Your task to perform on an android device: manage bookmarks in the chrome app Image 0: 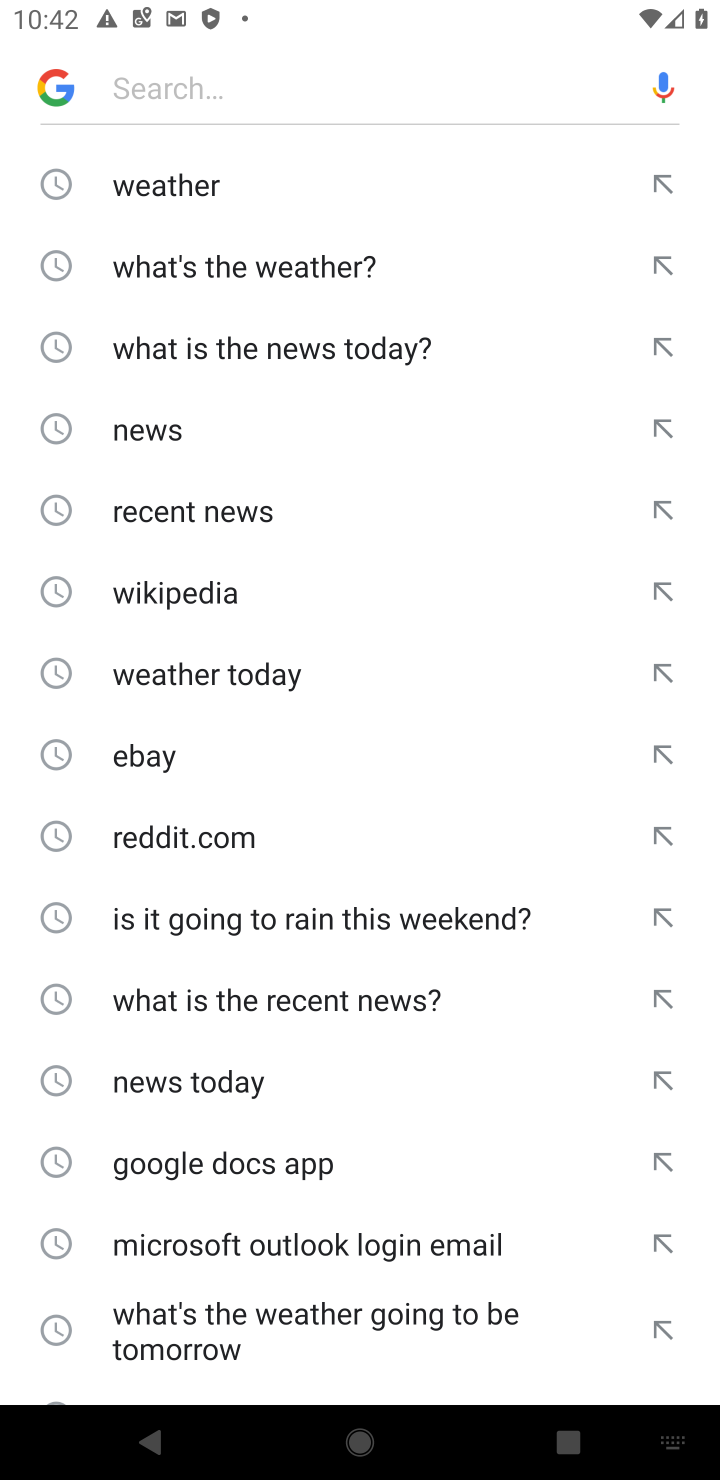
Step 0: click (412, 753)
Your task to perform on an android device: manage bookmarks in the chrome app Image 1: 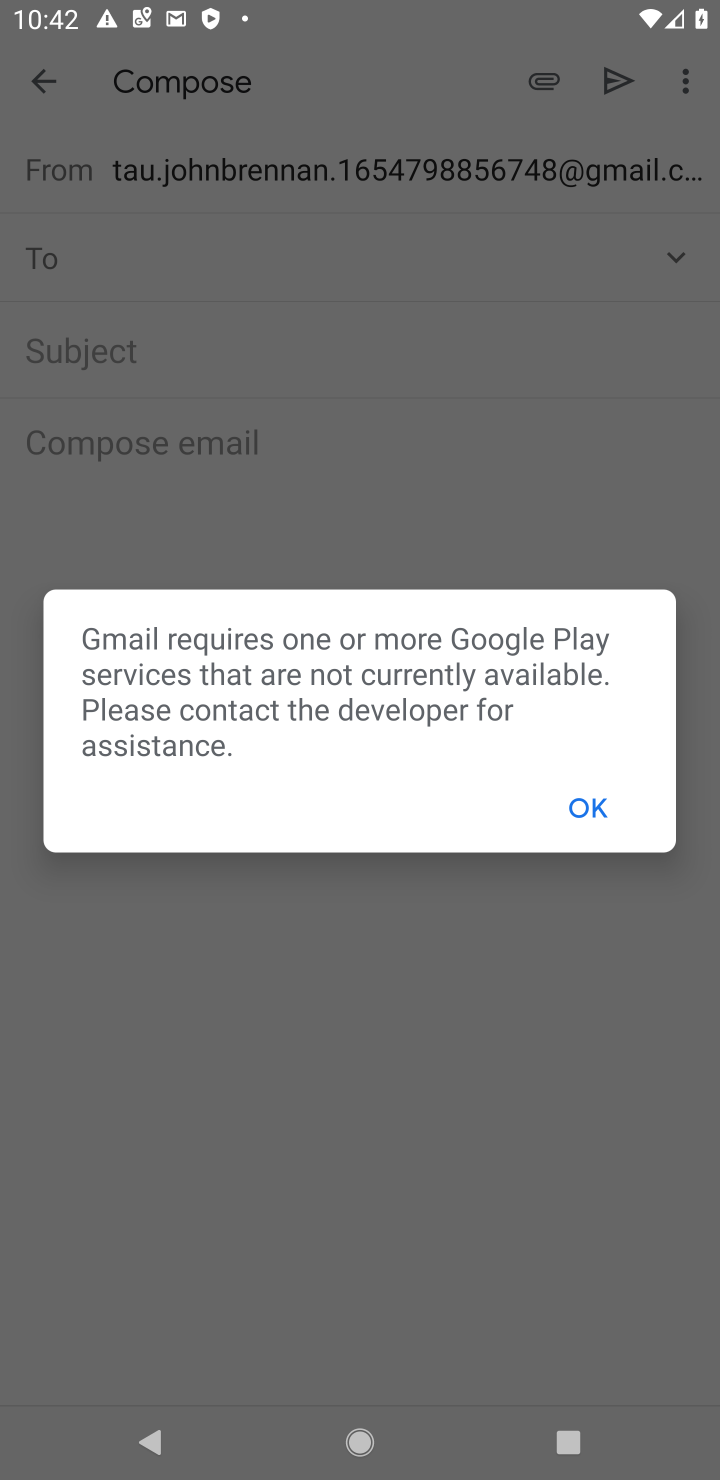
Step 1: press home button
Your task to perform on an android device: manage bookmarks in the chrome app Image 2: 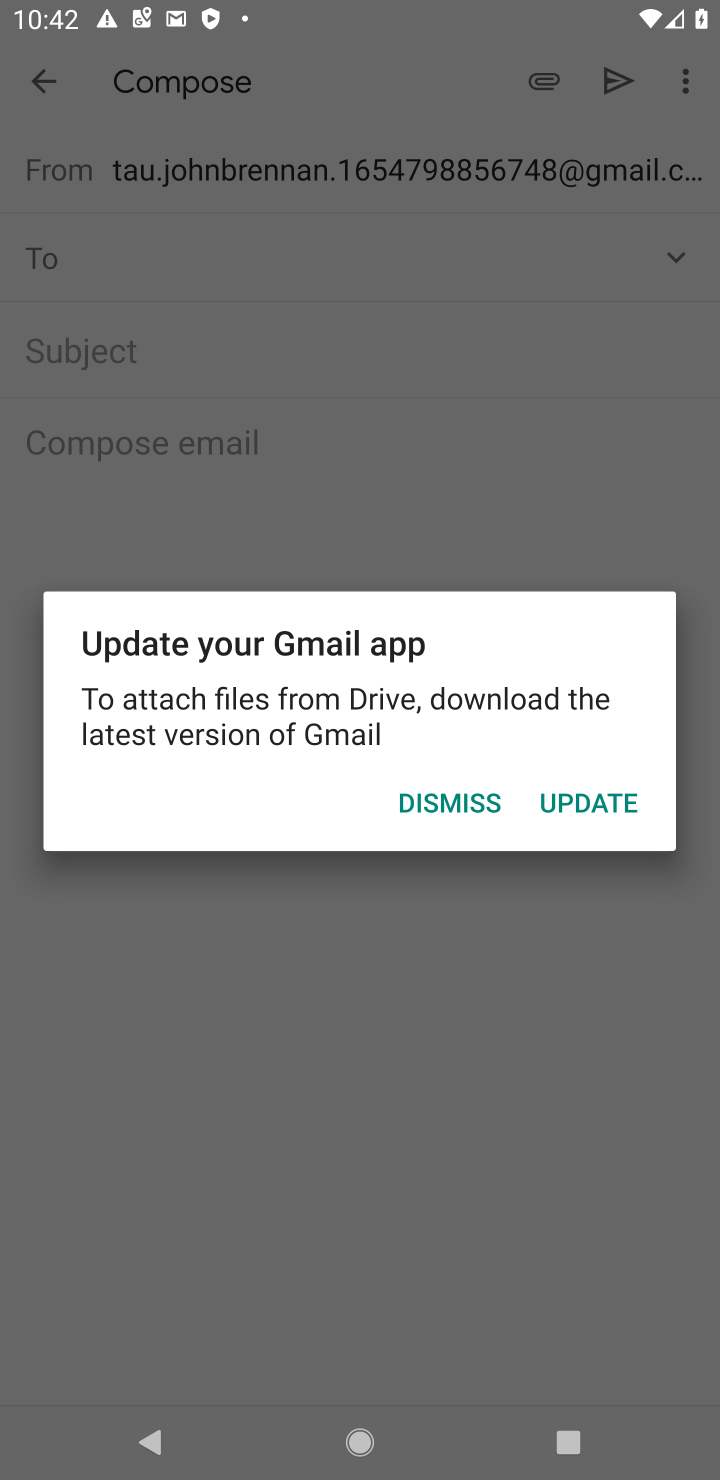
Step 2: drag from (372, 1248) to (335, 455)
Your task to perform on an android device: manage bookmarks in the chrome app Image 3: 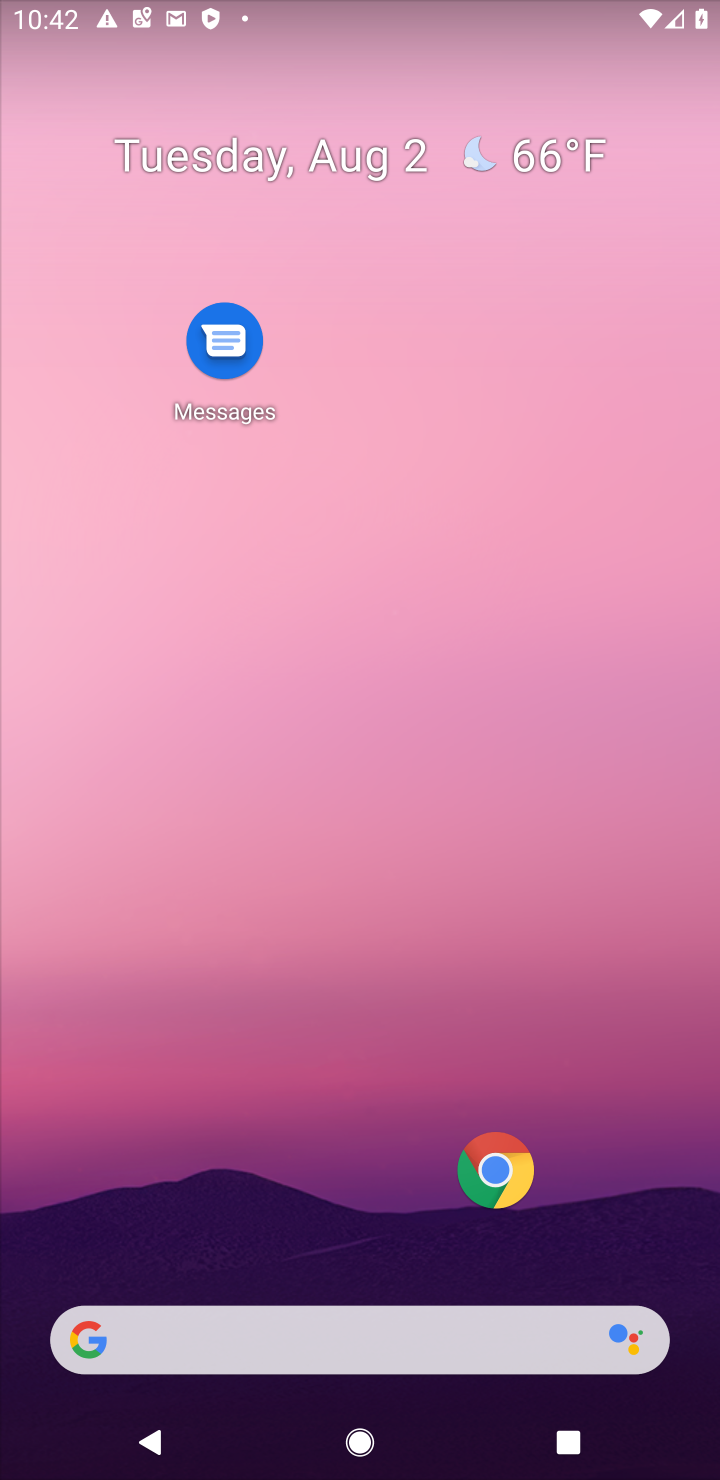
Step 3: click (484, 156)
Your task to perform on an android device: manage bookmarks in the chrome app Image 4: 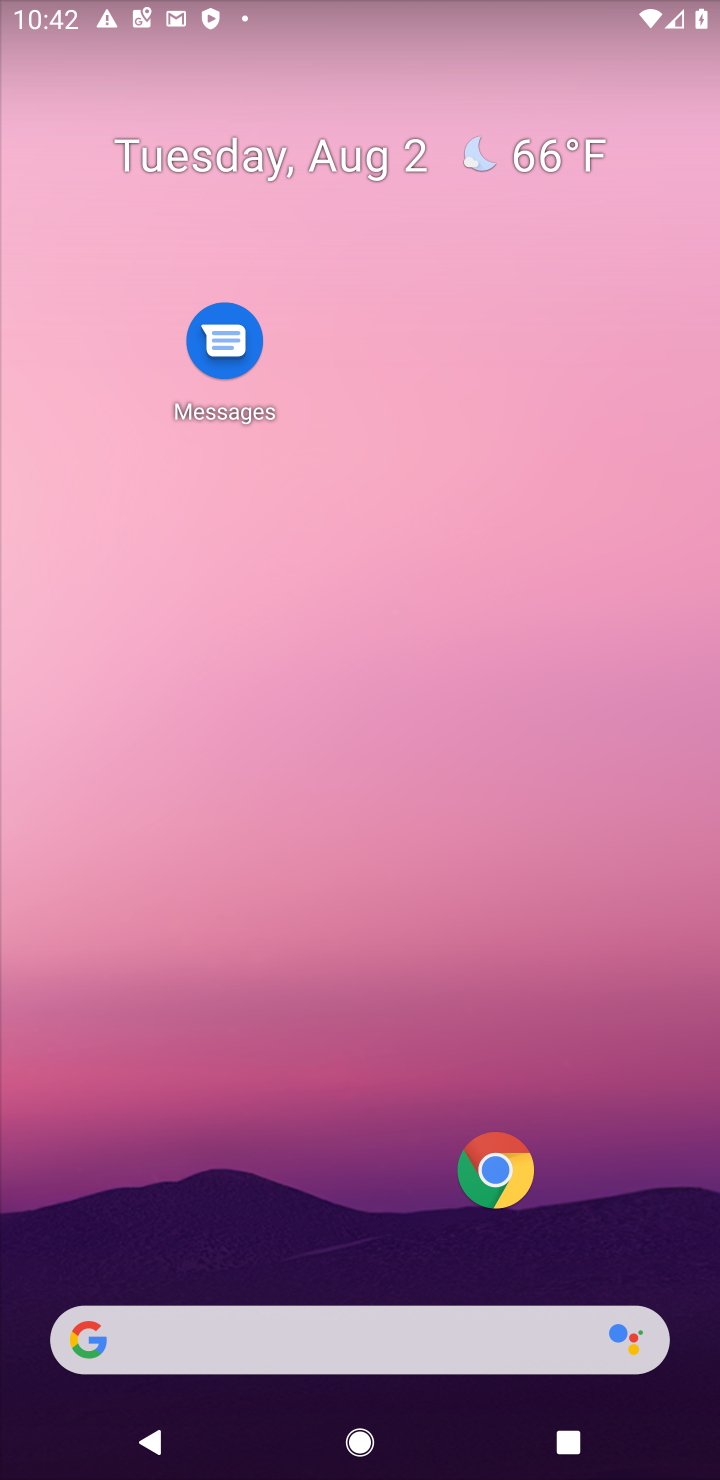
Step 4: drag from (437, 1266) to (519, 387)
Your task to perform on an android device: manage bookmarks in the chrome app Image 5: 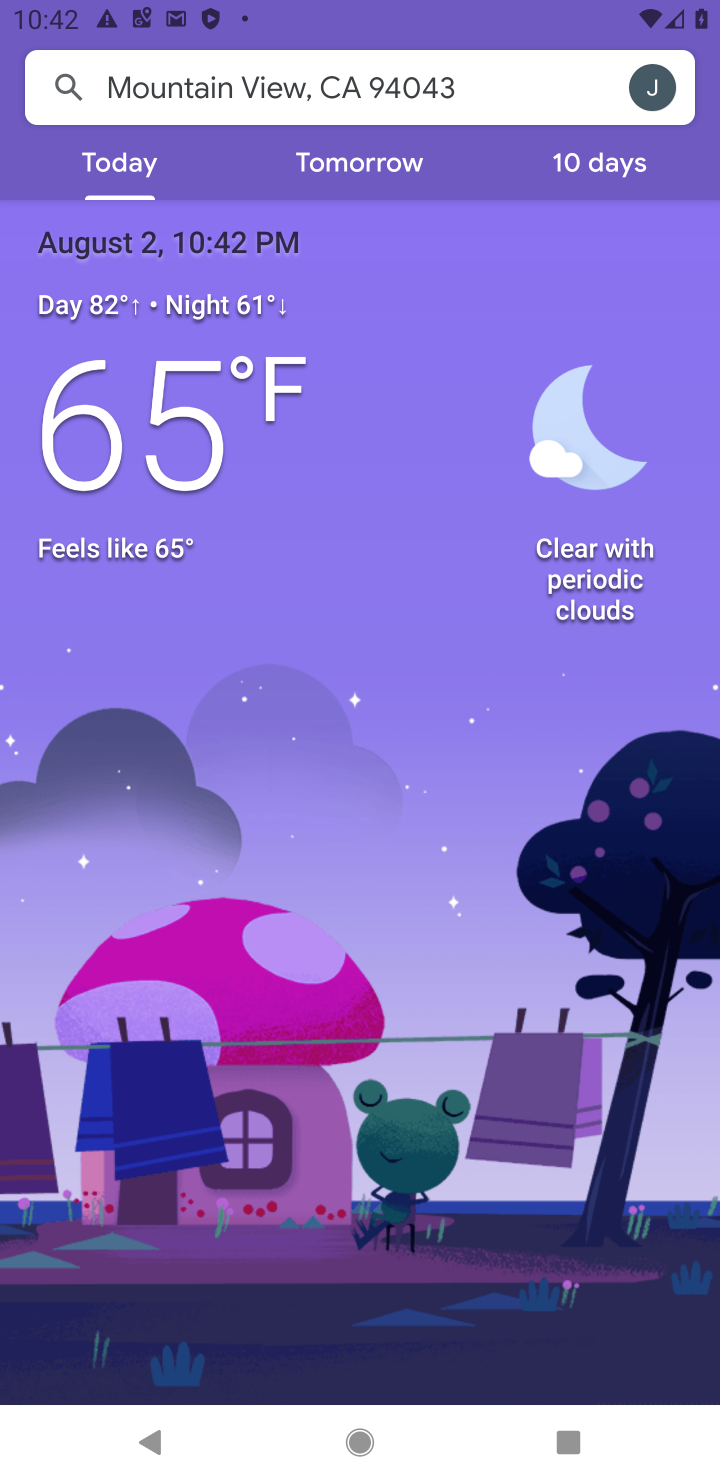
Step 5: drag from (358, 1198) to (353, 654)
Your task to perform on an android device: manage bookmarks in the chrome app Image 6: 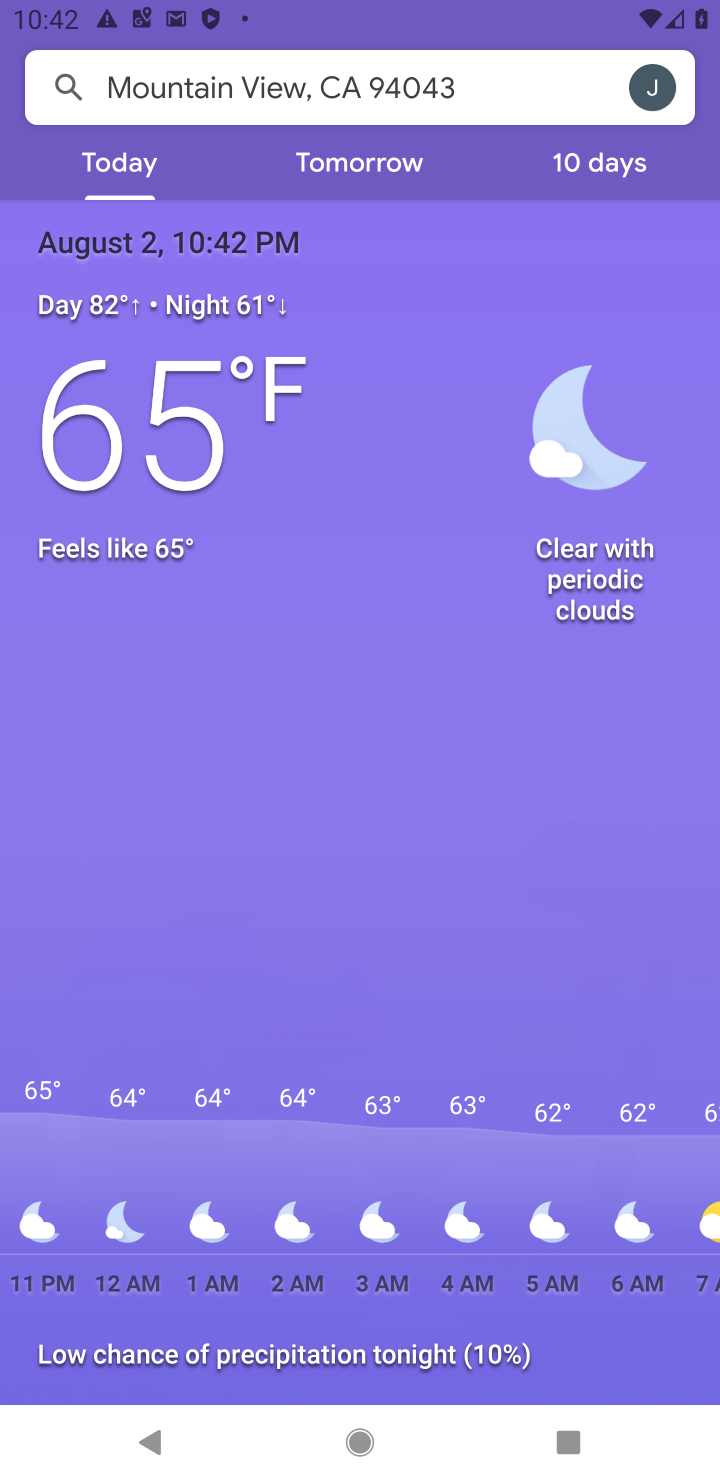
Step 6: press home button
Your task to perform on an android device: manage bookmarks in the chrome app Image 7: 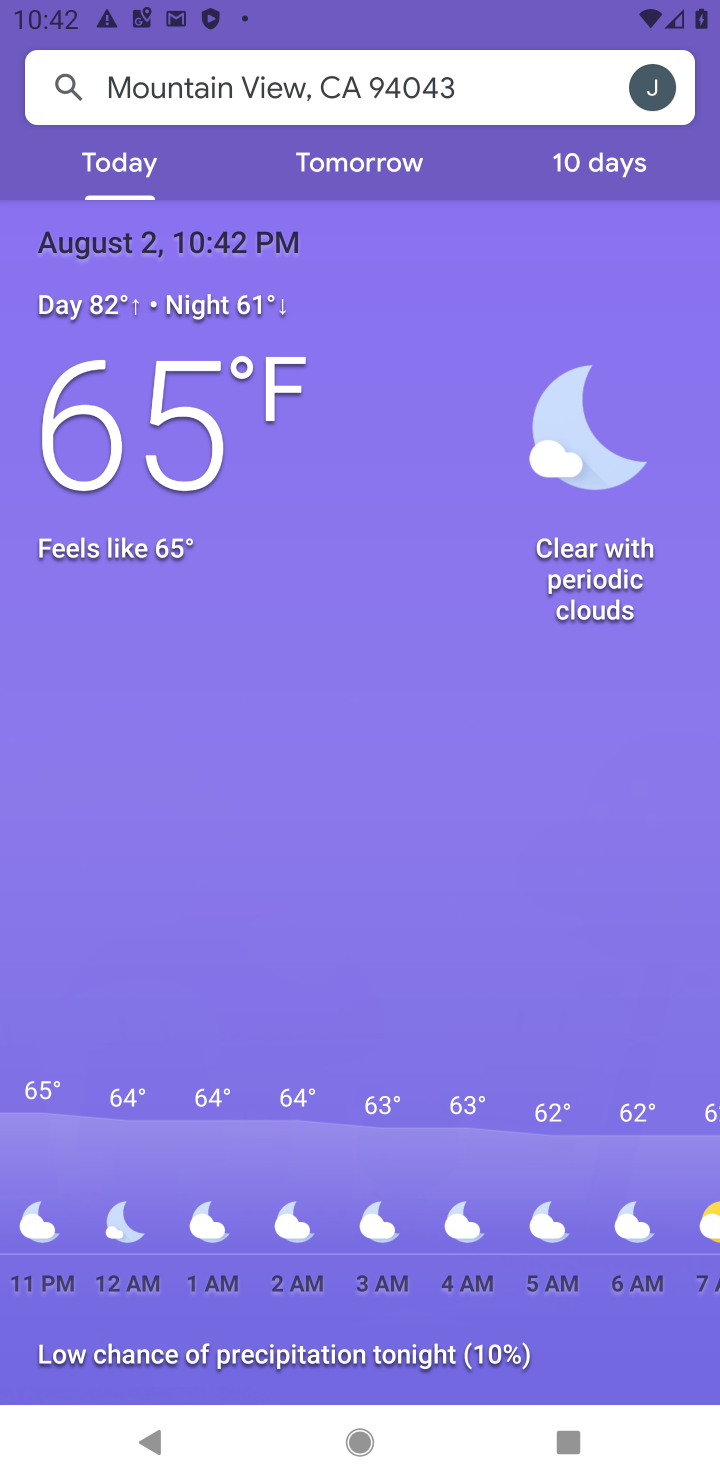
Step 7: press home button
Your task to perform on an android device: manage bookmarks in the chrome app Image 8: 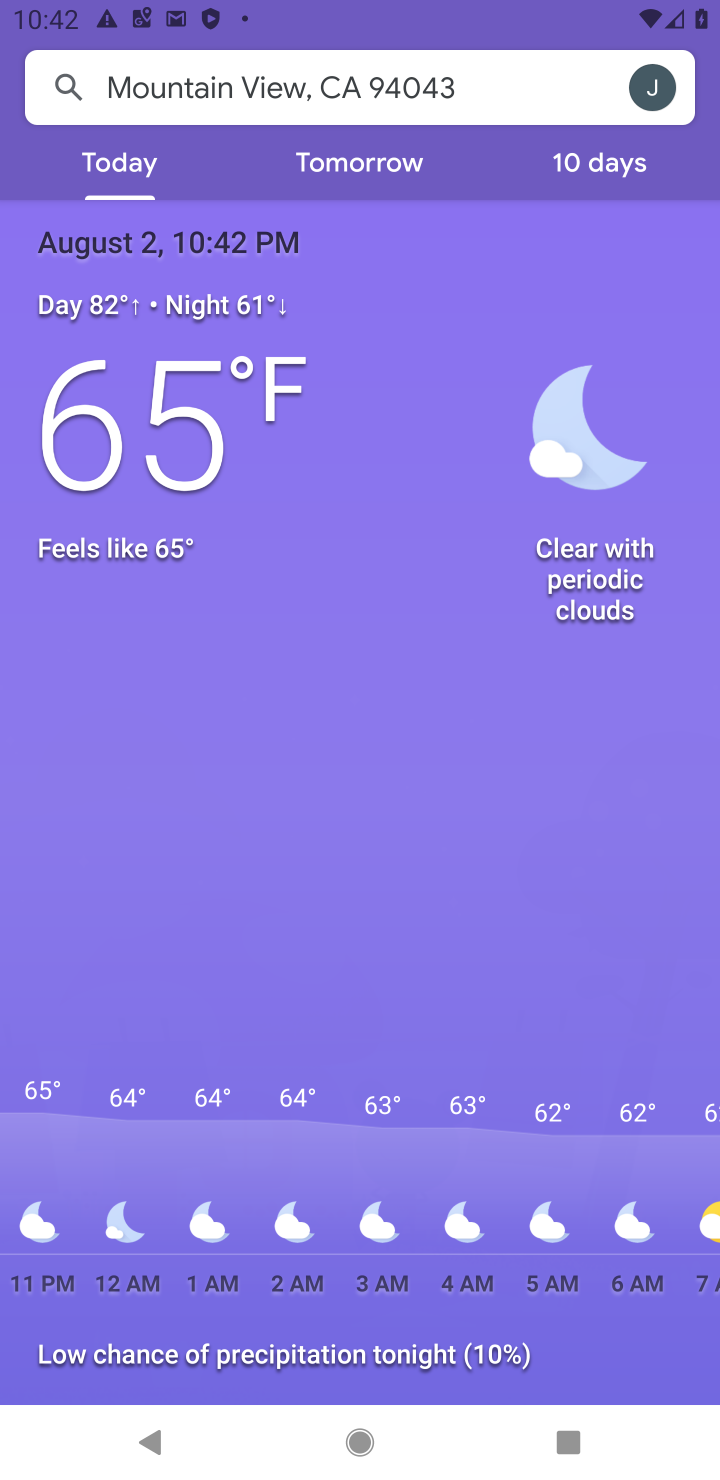
Step 8: drag from (366, 1013) to (390, 673)
Your task to perform on an android device: manage bookmarks in the chrome app Image 9: 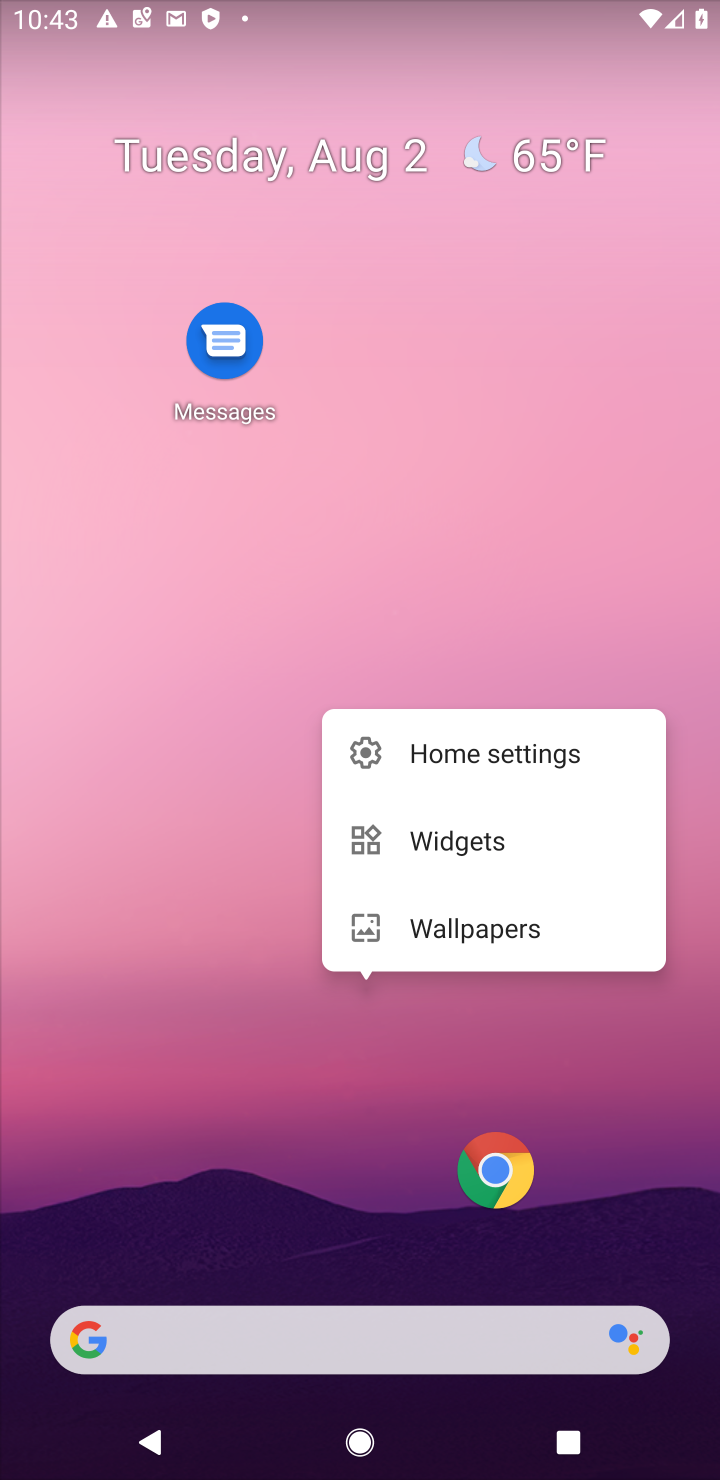
Step 9: click (342, 587)
Your task to perform on an android device: manage bookmarks in the chrome app Image 10: 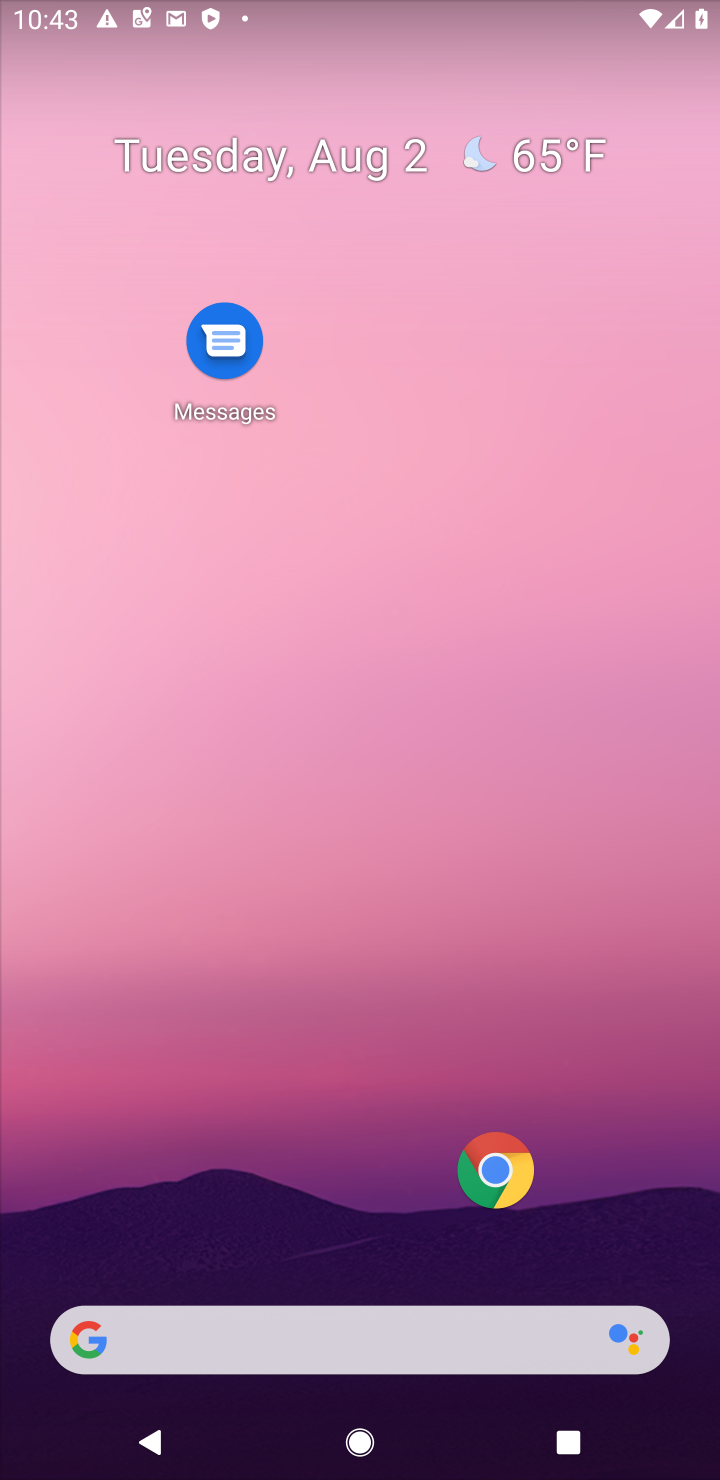
Step 10: drag from (347, 974) to (347, 559)
Your task to perform on an android device: manage bookmarks in the chrome app Image 11: 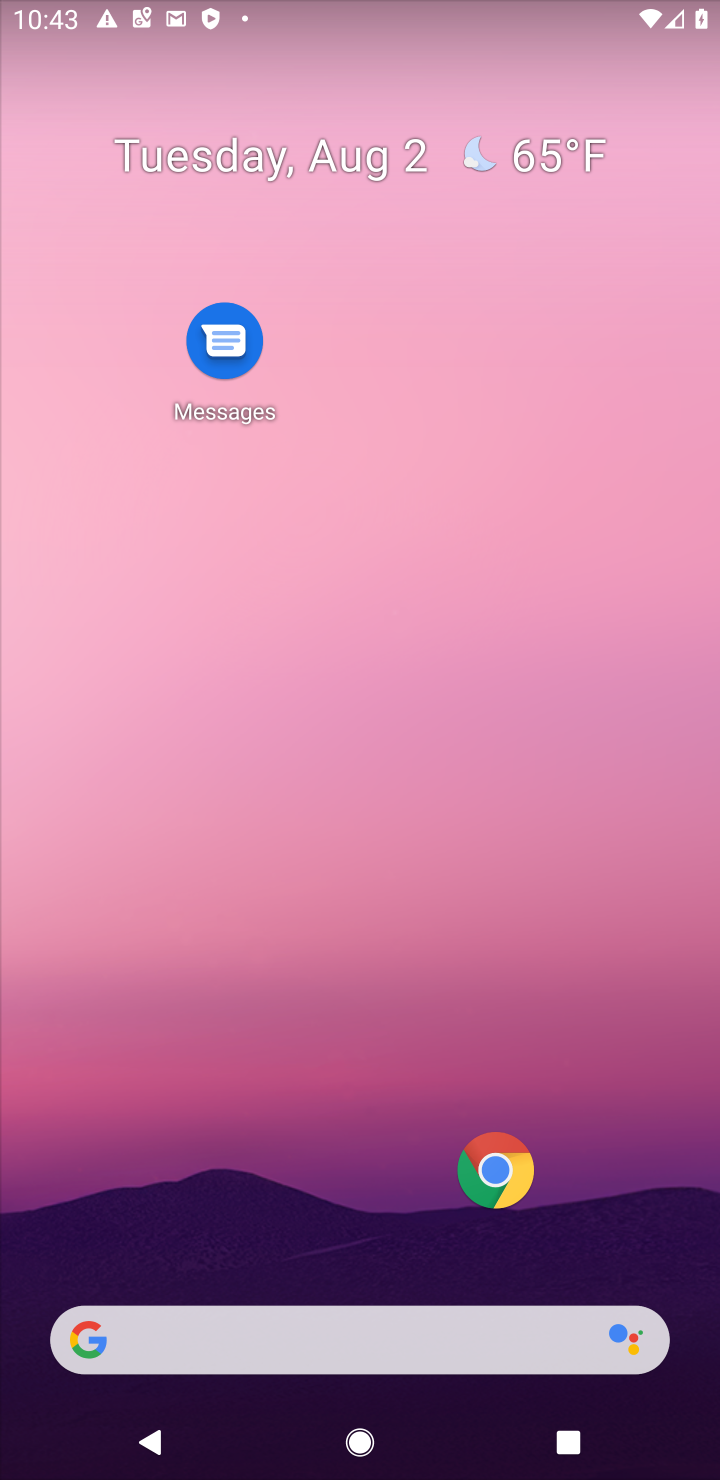
Step 11: drag from (325, 1118) to (355, 507)
Your task to perform on an android device: manage bookmarks in the chrome app Image 12: 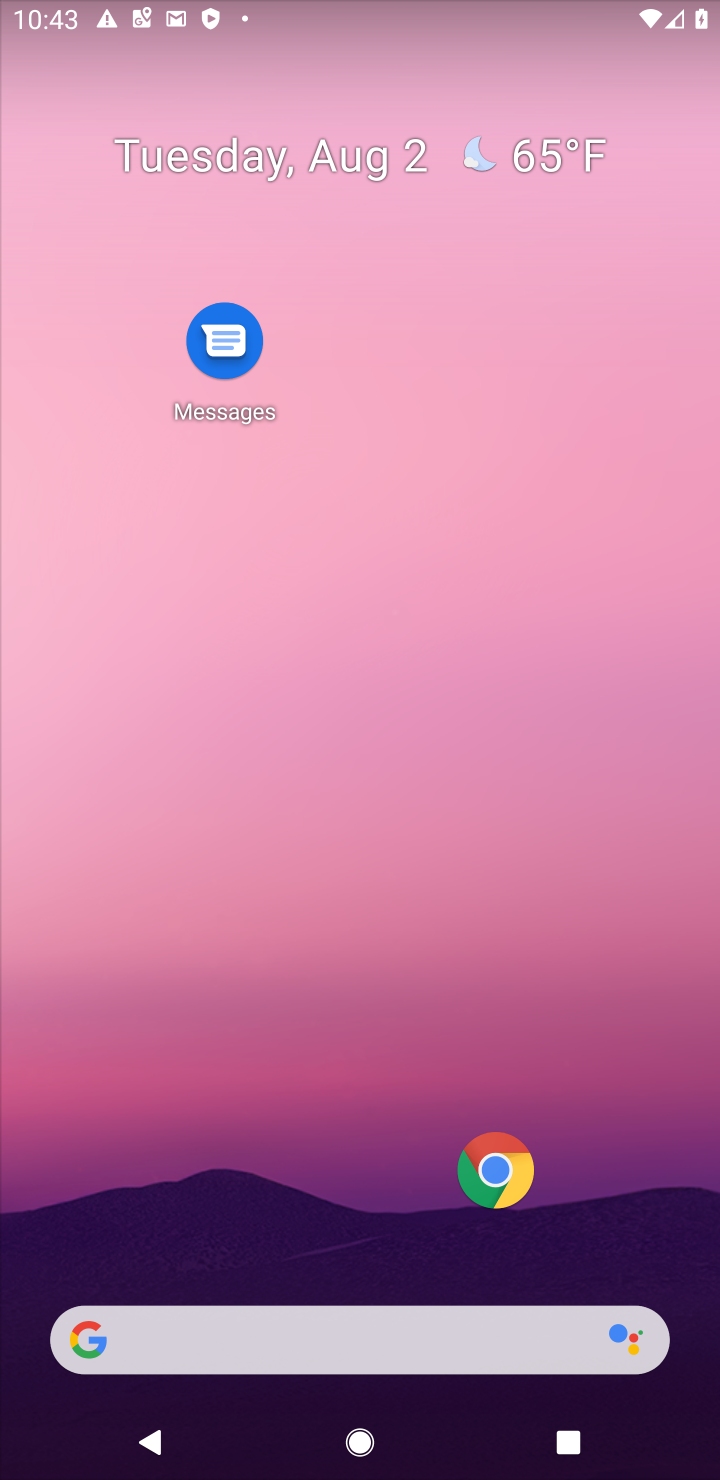
Step 12: drag from (446, 1143) to (345, 248)
Your task to perform on an android device: manage bookmarks in the chrome app Image 13: 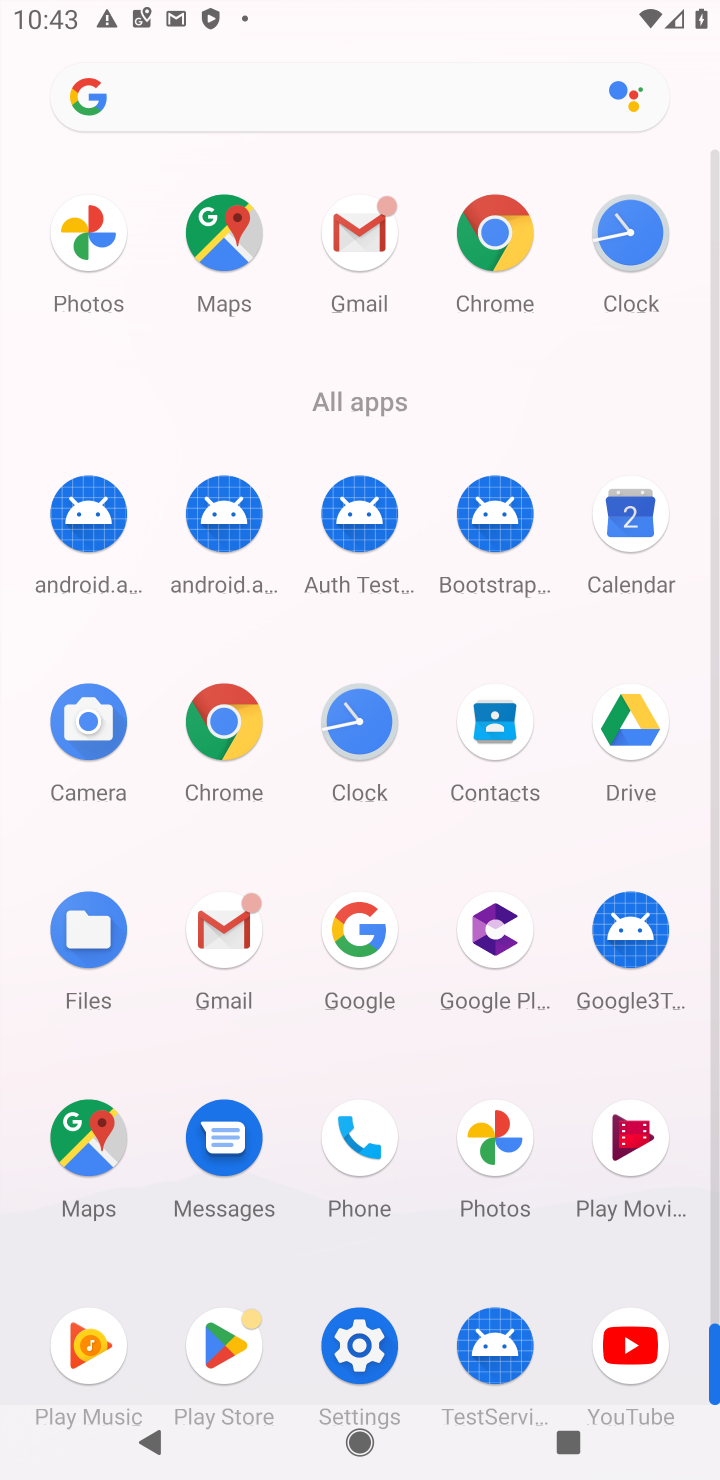
Step 13: click (220, 714)
Your task to perform on an android device: manage bookmarks in the chrome app Image 14: 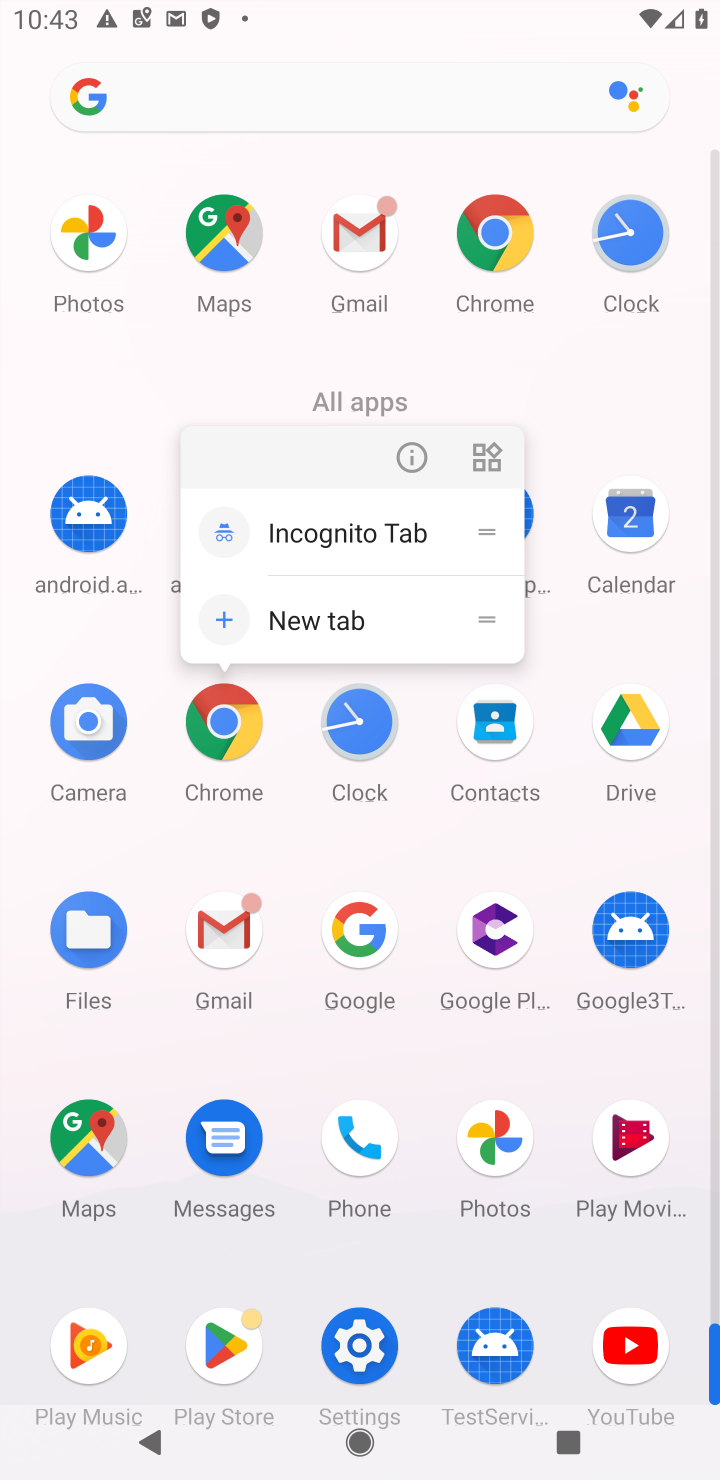
Step 14: click (418, 460)
Your task to perform on an android device: manage bookmarks in the chrome app Image 15: 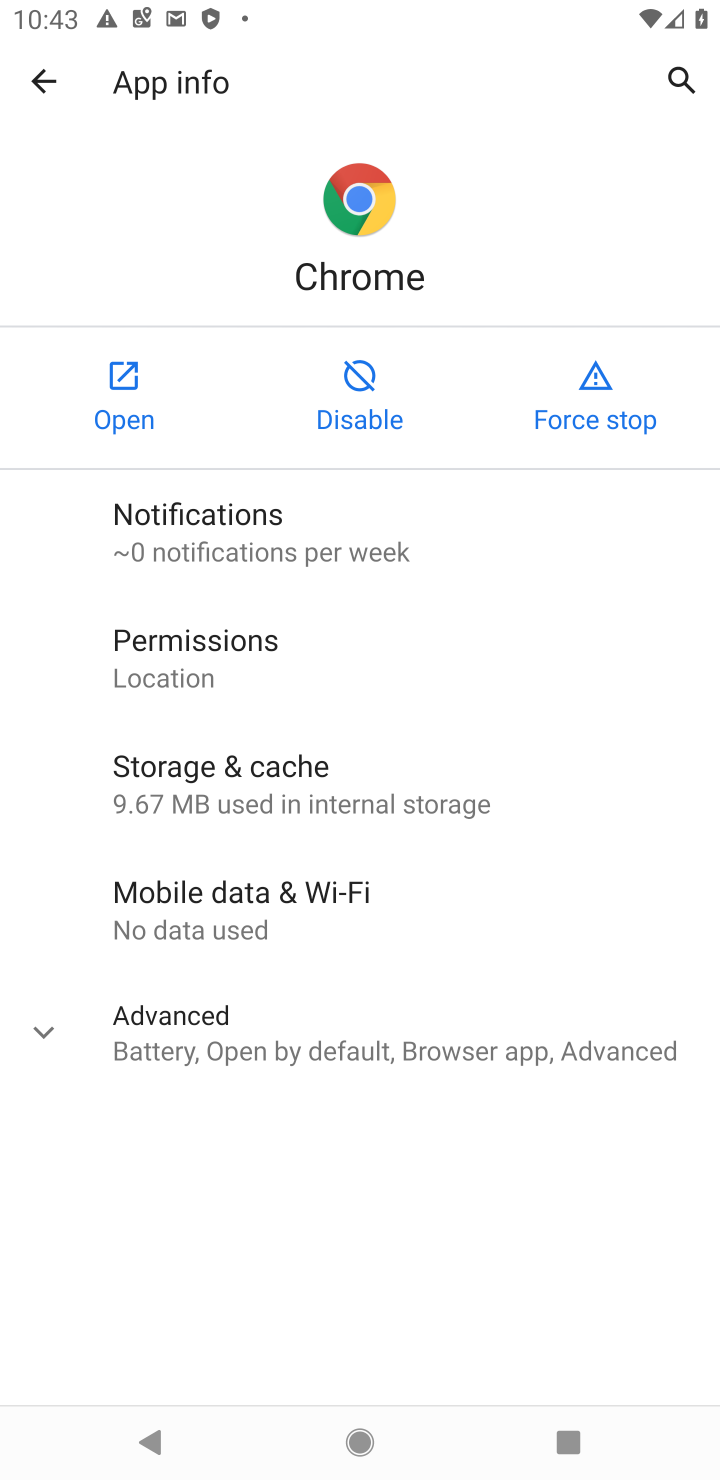
Step 15: click (111, 396)
Your task to perform on an android device: manage bookmarks in the chrome app Image 16: 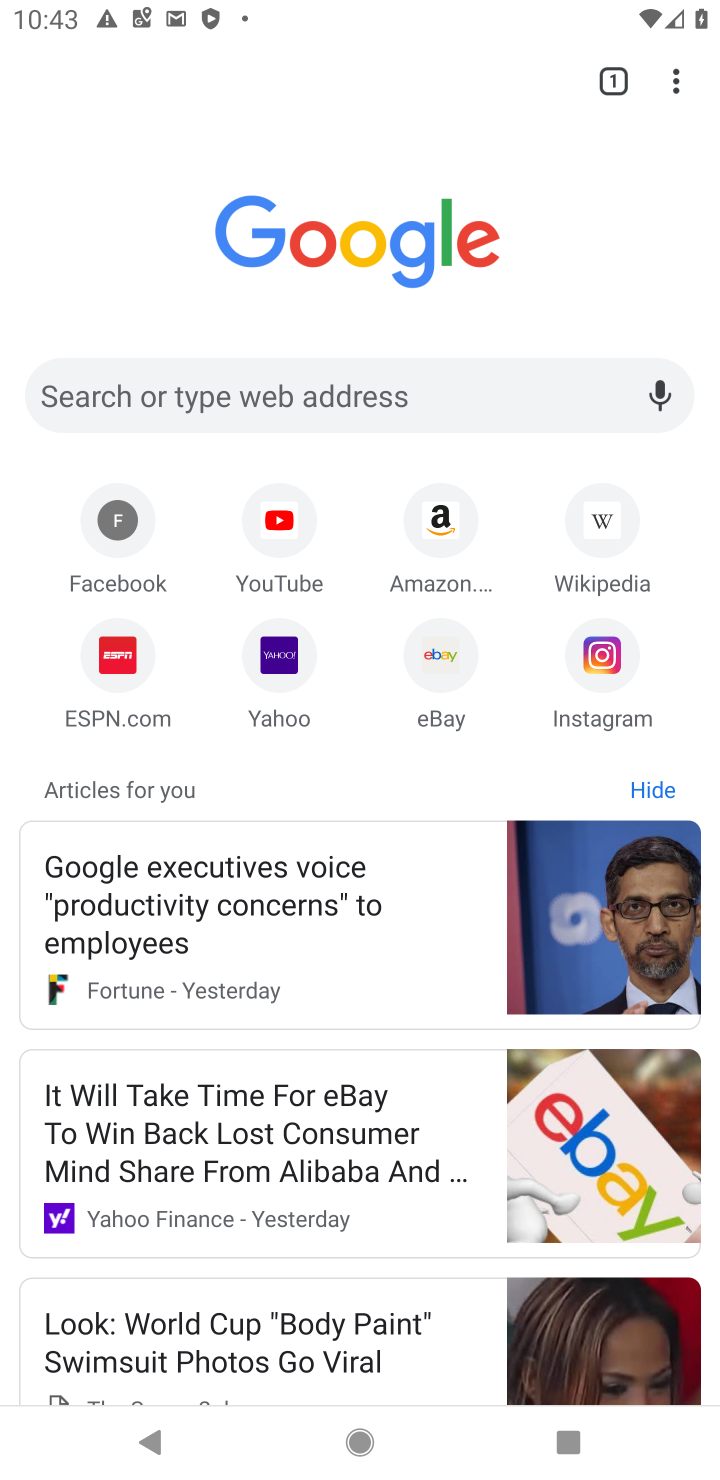
Step 16: task complete